Your task to perform on an android device: turn pop-ups on in chrome Image 0: 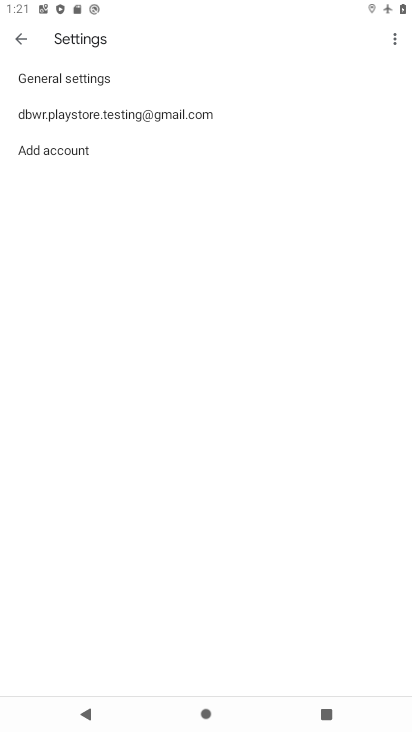
Step 0: press home button
Your task to perform on an android device: turn pop-ups on in chrome Image 1: 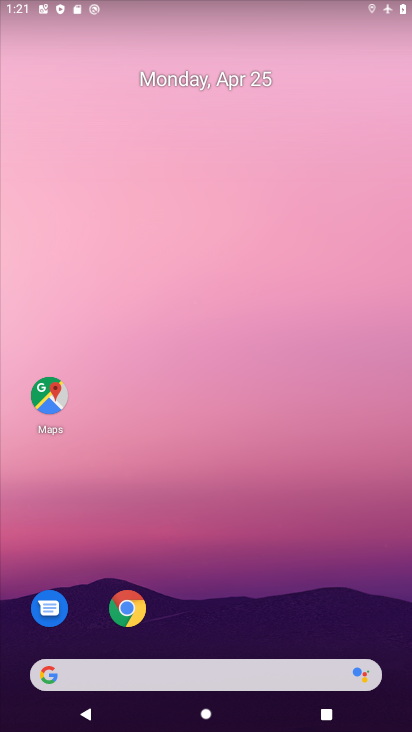
Step 1: click (132, 601)
Your task to perform on an android device: turn pop-ups on in chrome Image 2: 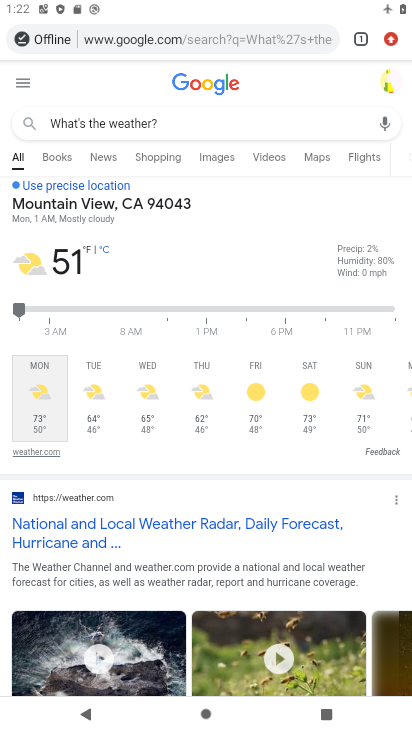
Step 2: drag from (394, 58) to (272, 476)
Your task to perform on an android device: turn pop-ups on in chrome Image 3: 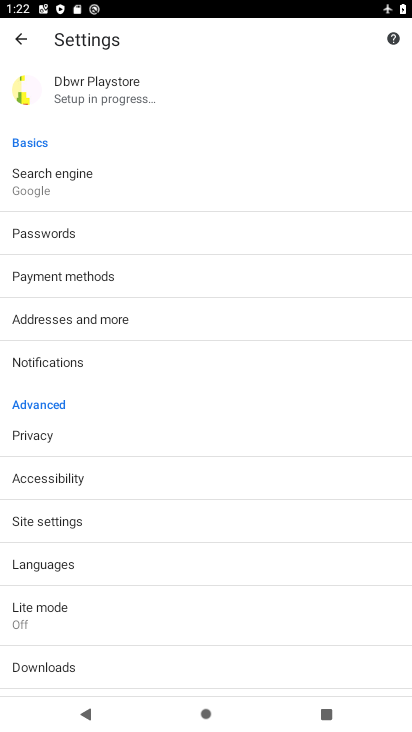
Step 3: click (169, 534)
Your task to perform on an android device: turn pop-ups on in chrome Image 4: 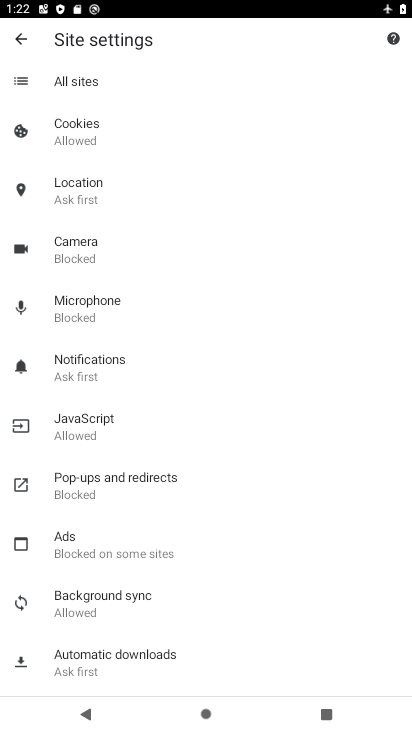
Step 4: click (140, 471)
Your task to perform on an android device: turn pop-ups on in chrome Image 5: 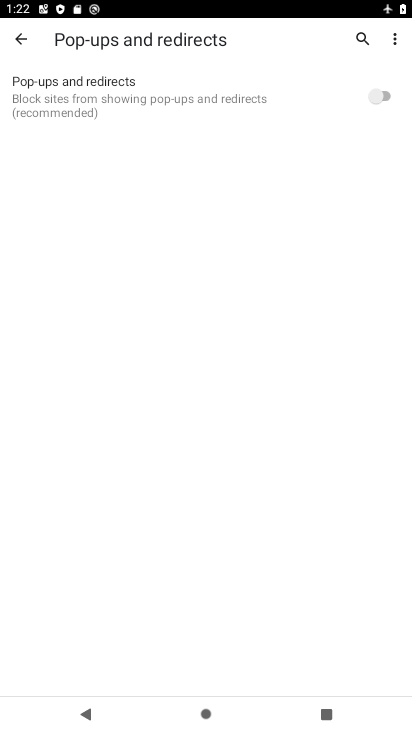
Step 5: click (390, 103)
Your task to perform on an android device: turn pop-ups on in chrome Image 6: 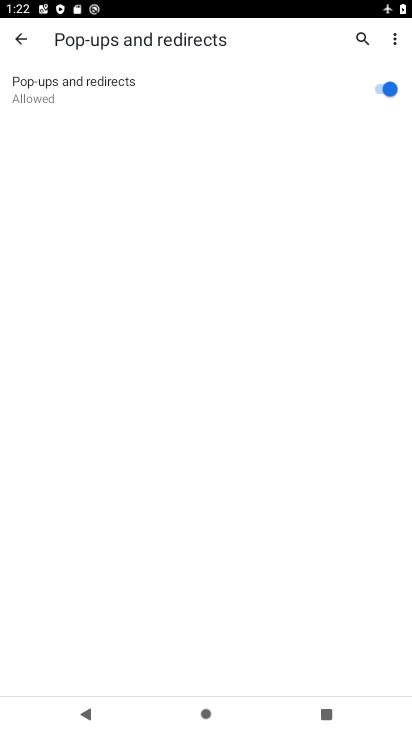
Step 6: task complete